Your task to perform on an android device: check out phone information Image 0: 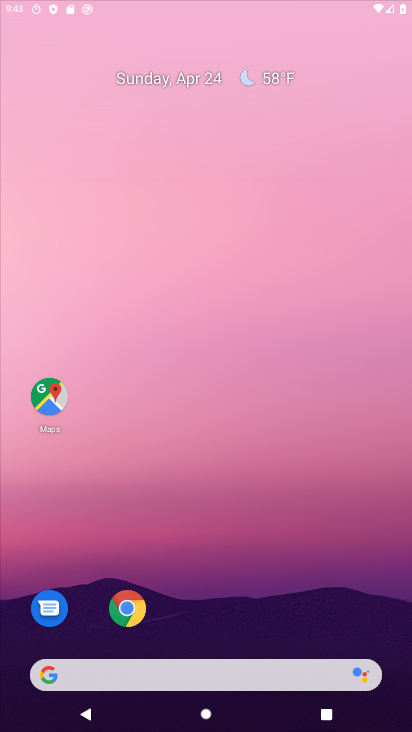
Step 0: drag from (349, 564) to (340, 122)
Your task to perform on an android device: check out phone information Image 1: 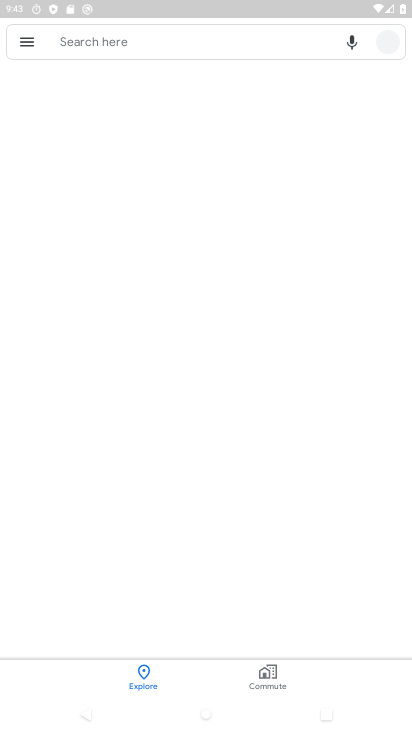
Step 1: press home button
Your task to perform on an android device: check out phone information Image 2: 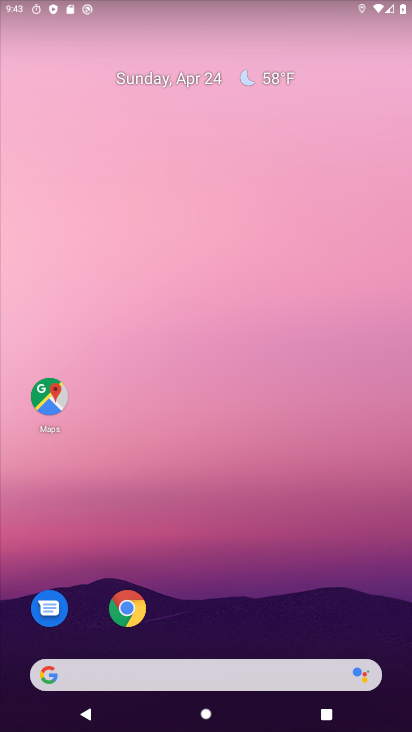
Step 2: drag from (316, 614) to (310, 85)
Your task to perform on an android device: check out phone information Image 3: 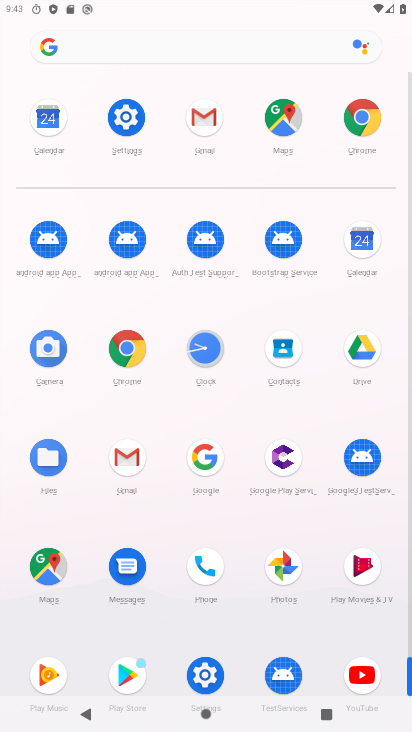
Step 3: click (207, 568)
Your task to perform on an android device: check out phone information Image 4: 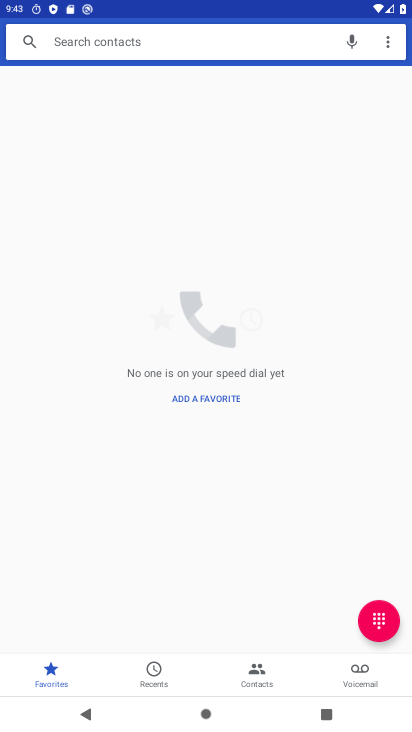
Step 4: click (157, 675)
Your task to perform on an android device: check out phone information Image 5: 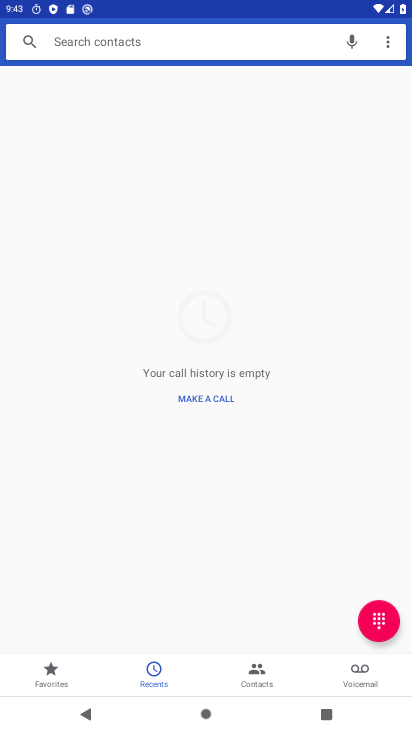
Step 5: task complete